Your task to perform on an android device: Open the calendar app, open the side menu, and click the "Day" option Image 0: 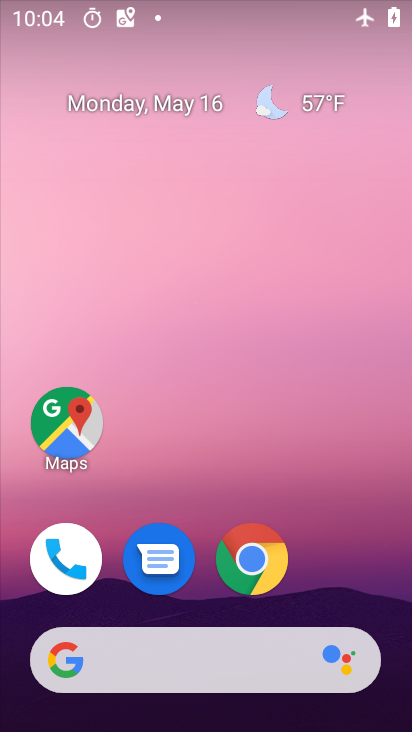
Step 0: drag from (320, 517) to (307, 83)
Your task to perform on an android device: Open the calendar app, open the side menu, and click the "Day" option Image 1: 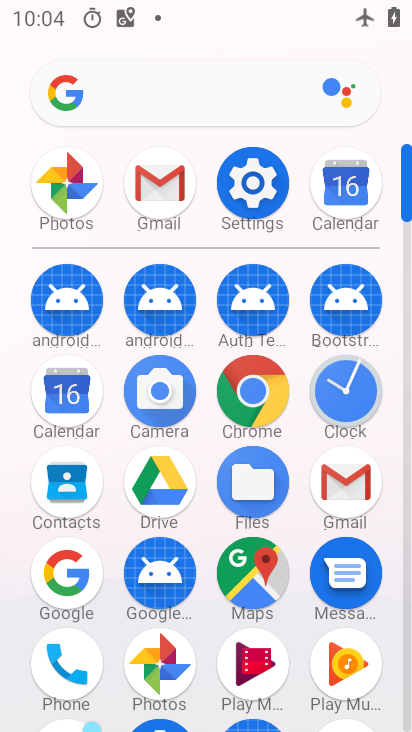
Step 1: click (75, 391)
Your task to perform on an android device: Open the calendar app, open the side menu, and click the "Day" option Image 2: 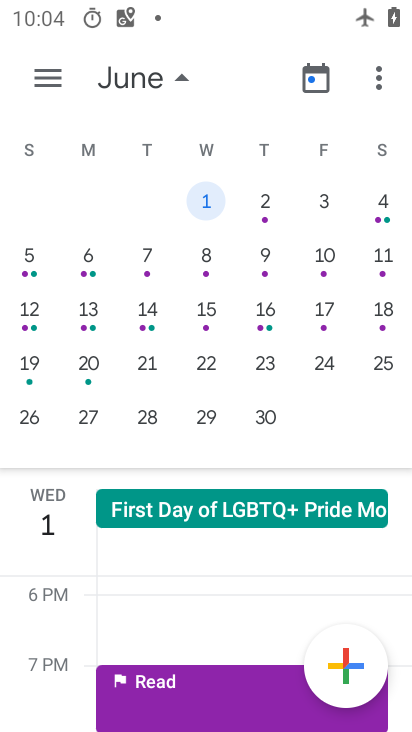
Step 2: click (50, 71)
Your task to perform on an android device: Open the calendar app, open the side menu, and click the "Day" option Image 3: 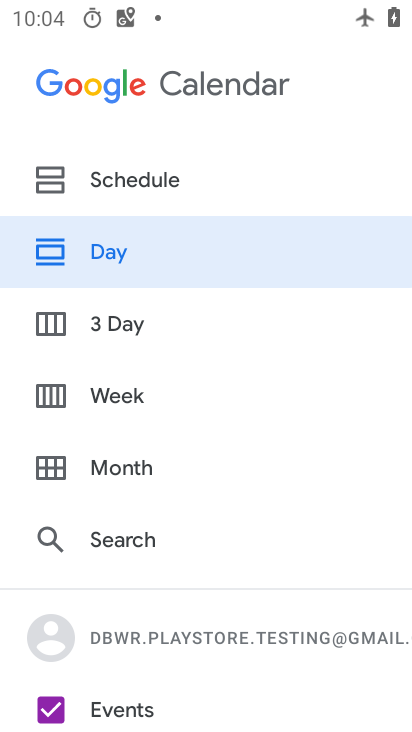
Step 3: click (103, 255)
Your task to perform on an android device: Open the calendar app, open the side menu, and click the "Day" option Image 4: 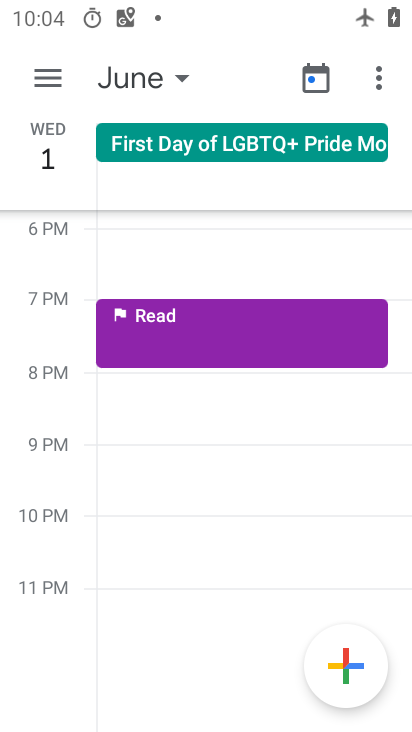
Step 4: task complete